Your task to perform on an android device: change notifications settings Image 0: 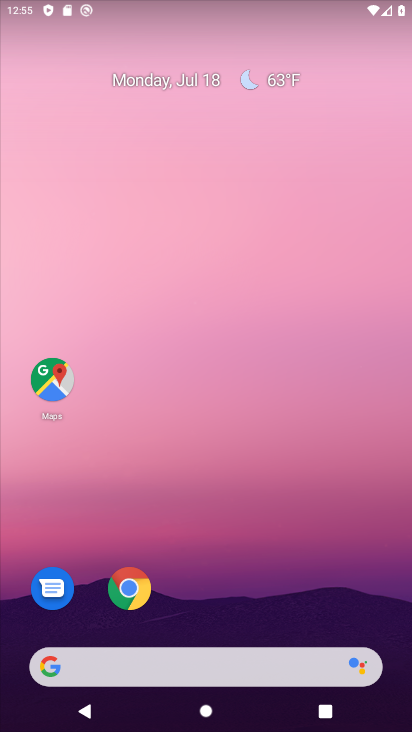
Step 0: drag from (229, 665) to (308, 170)
Your task to perform on an android device: change notifications settings Image 1: 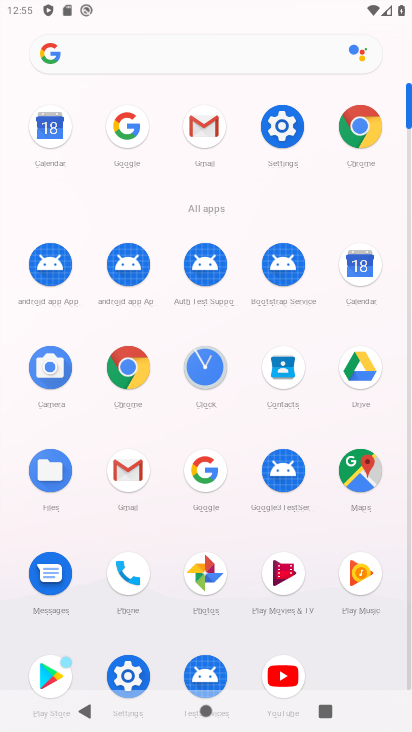
Step 1: click (270, 141)
Your task to perform on an android device: change notifications settings Image 2: 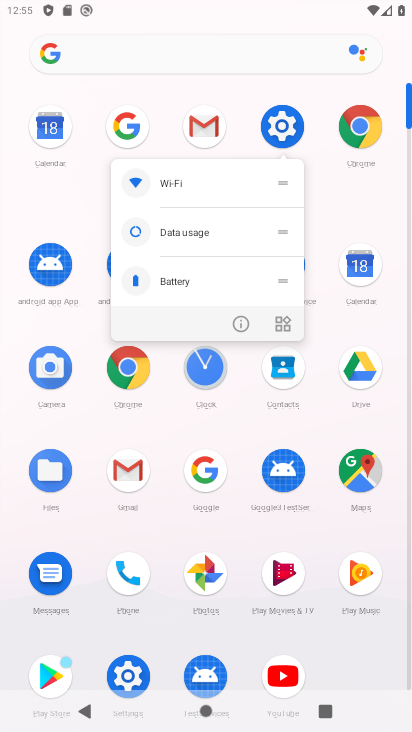
Step 2: click (294, 132)
Your task to perform on an android device: change notifications settings Image 3: 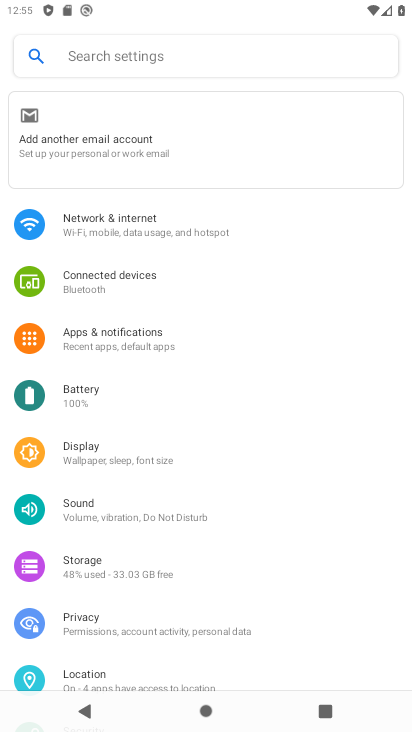
Step 3: click (119, 507)
Your task to perform on an android device: change notifications settings Image 4: 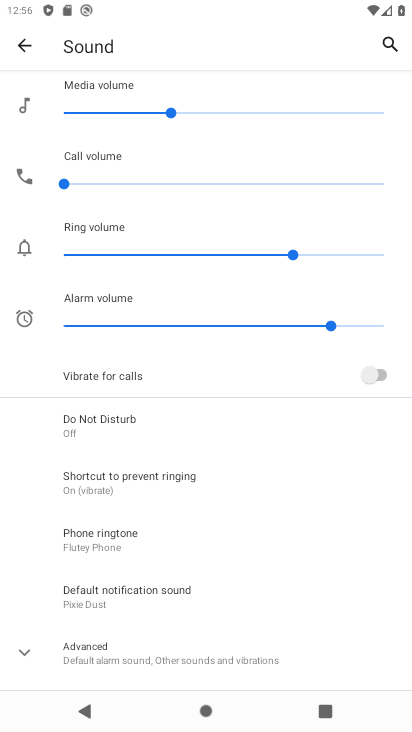
Step 4: click (375, 368)
Your task to perform on an android device: change notifications settings Image 5: 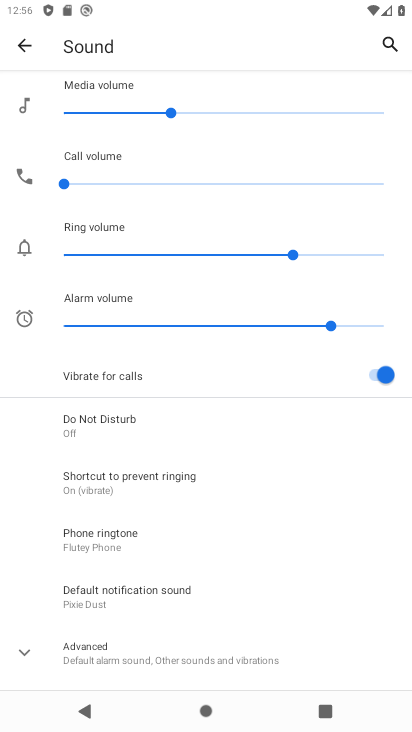
Step 5: task complete